Your task to perform on an android device: Open ESPN.com Image 0: 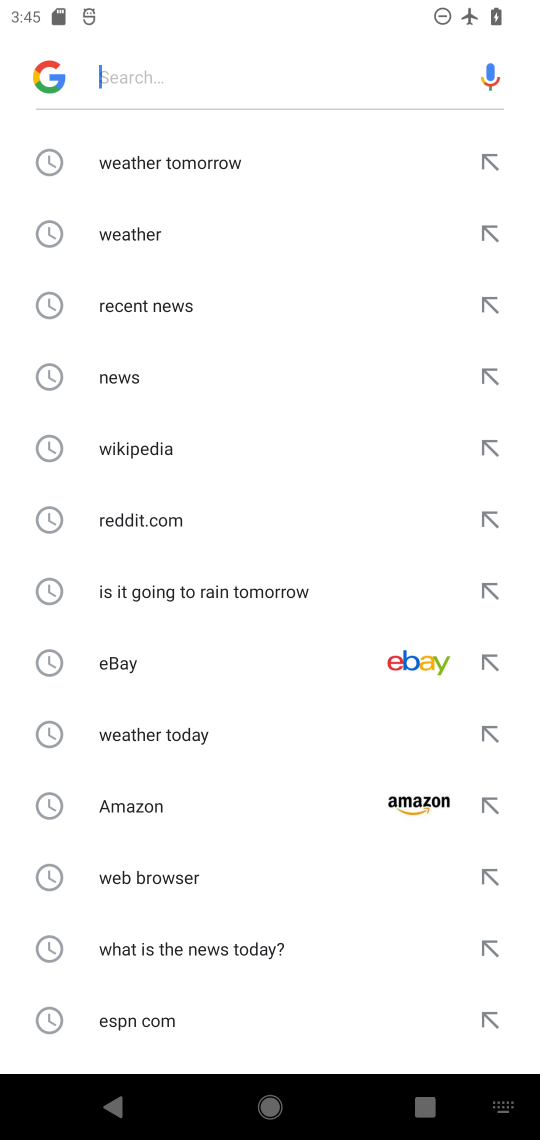
Step 0: click (128, 1019)
Your task to perform on an android device: Open ESPN.com Image 1: 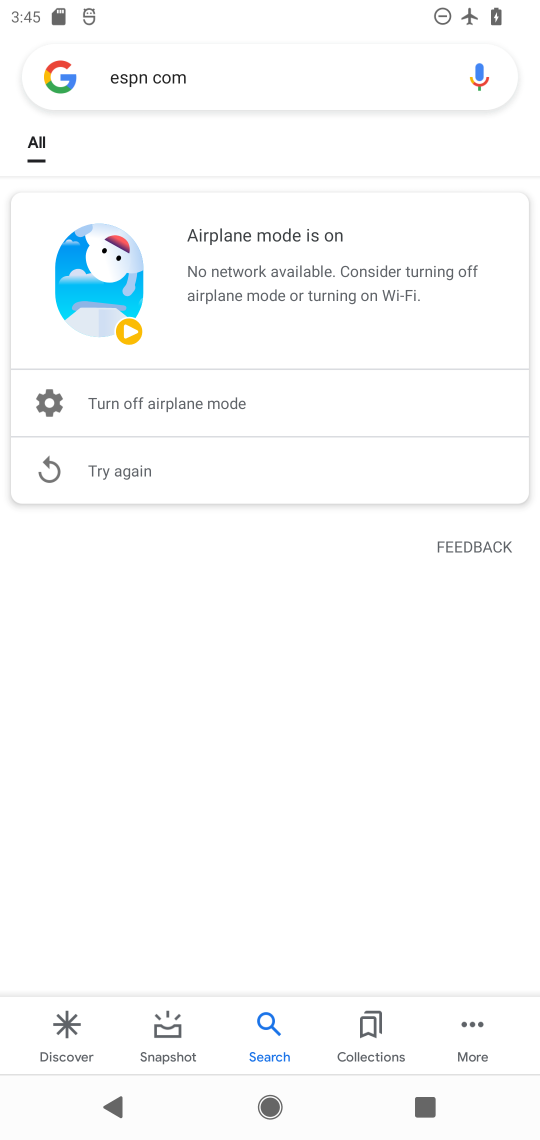
Step 1: task complete